Your task to perform on an android device: open app "YouTube Kids" (install if not already installed) Image 0: 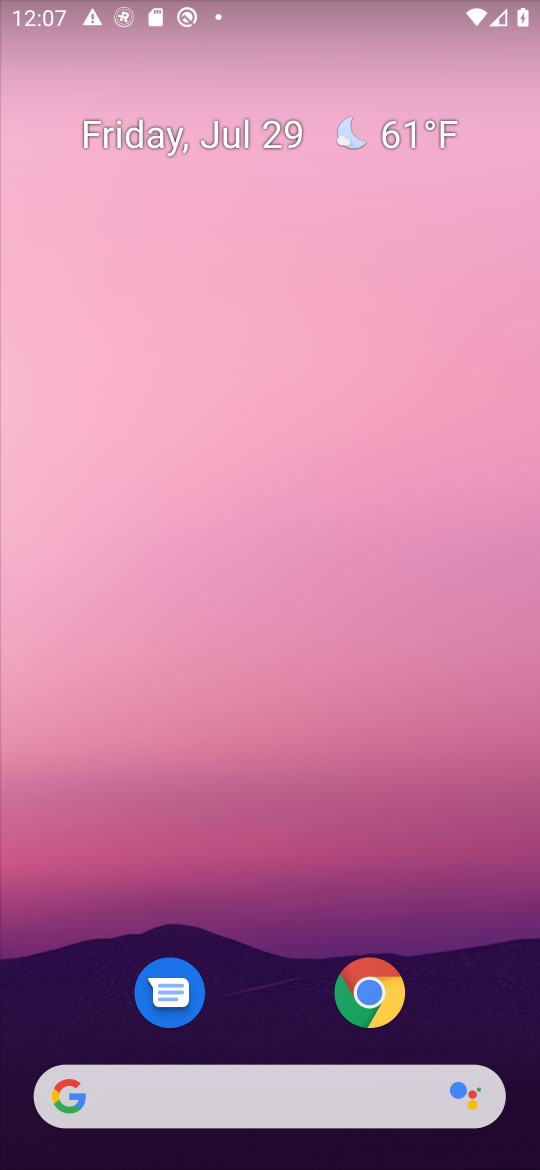
Step 0: drag from (216, 1090) to (299, 161)
Your task to perform on an android device: open app "YouTube Kids" (install if not already installed) Image 1: 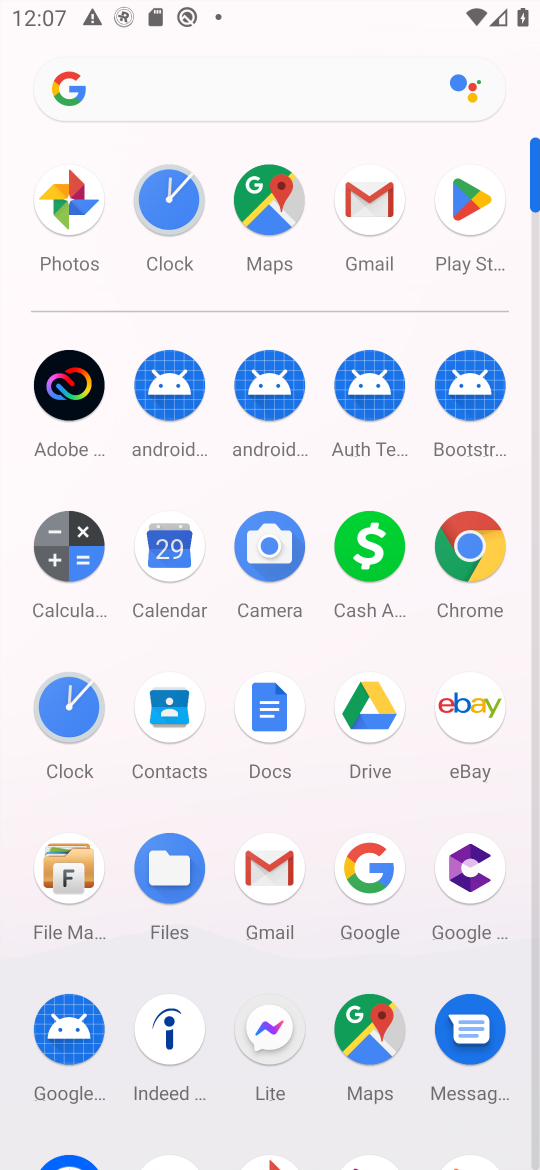
Step 1: click (466, 208)
Your task to perform on an android device: open app "YouTube Kids" (install if not already installed) Image 2: 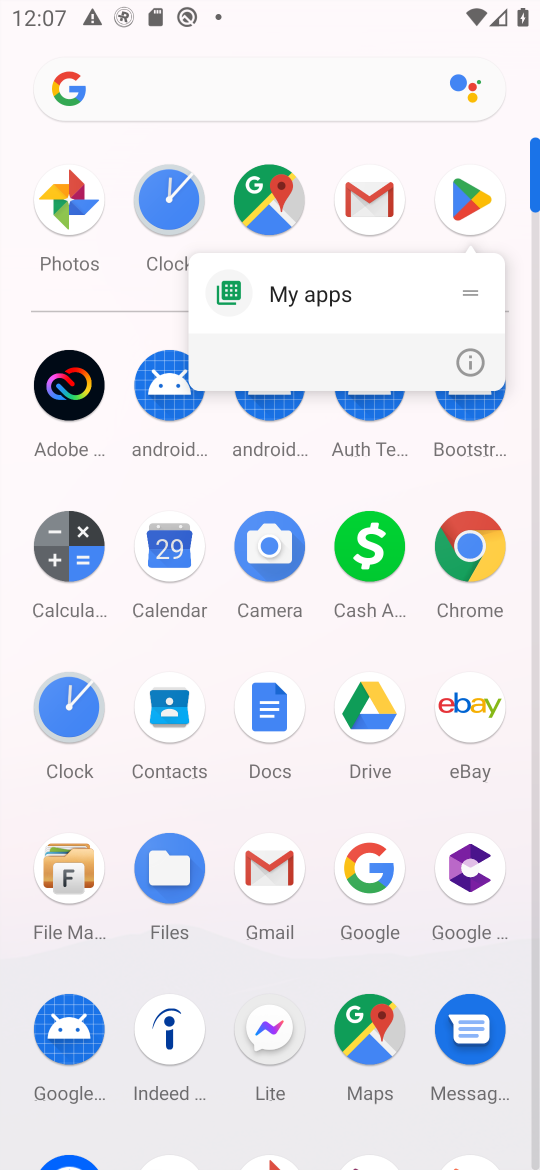
Step 2: click (466, 208)
Your task to perform on an android device: open app "YouTube Kids" (install if not already installed) Image 3: 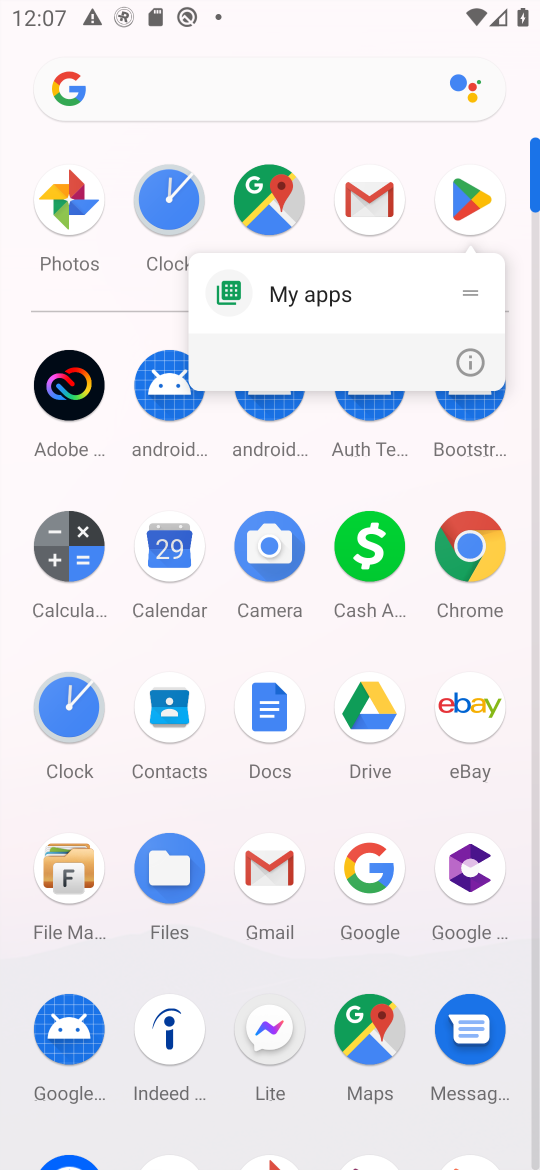
Step 3: click (480, 200)
Your task to perform on an android device: open app "YouTube Kids" (install if not already installed) Image 4: 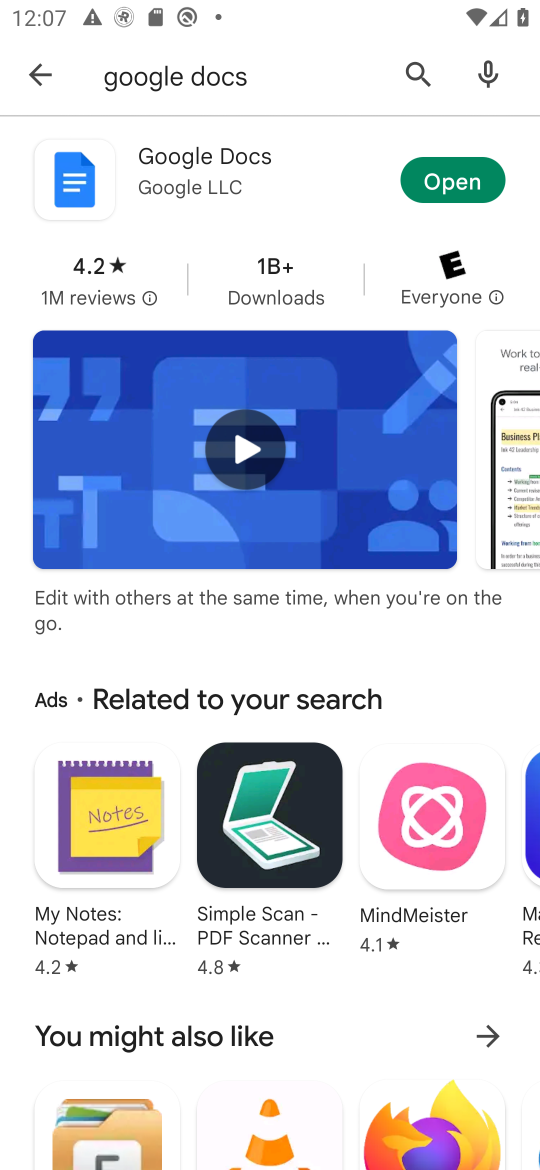
Step 4: click (420, 79)
Your task to perform on an android device: open app "YouTube Kids" (install if not already installed) Image 5: 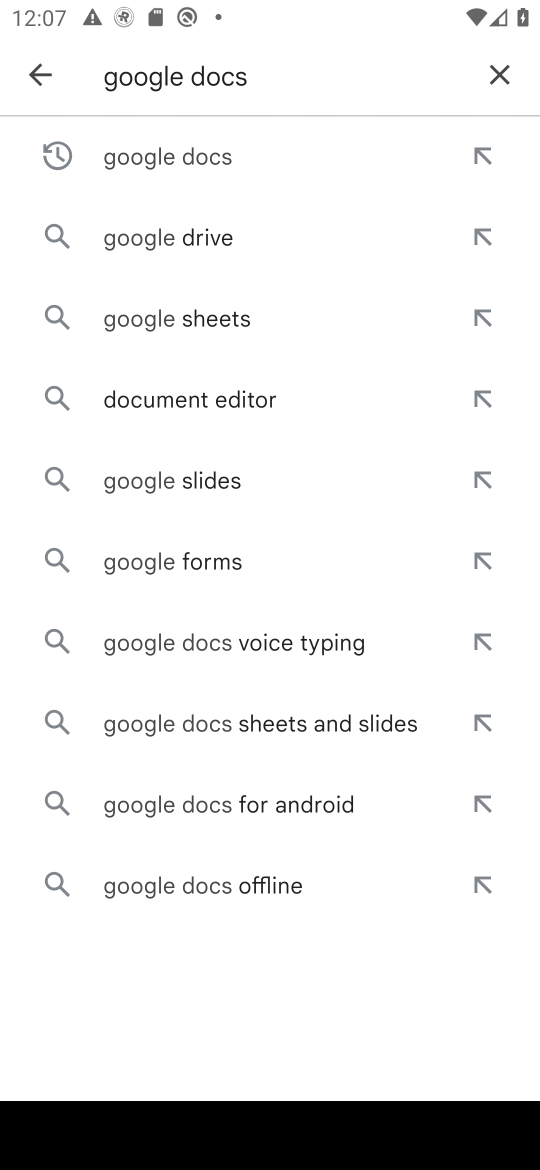
Step 5: click (514, 75)
Your task to perform on an android device: open app "YouTube Kids" (install if not already installed) Image 6: 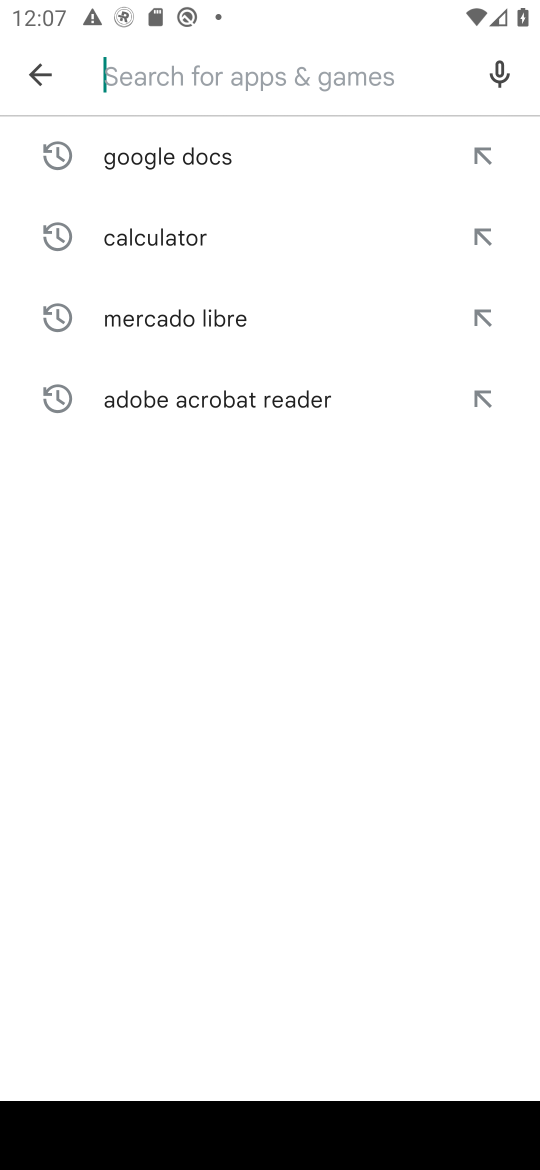
Step 6: type "YouTube Kids"
Your task to perform on an android device: open app "YouTube Kids" (install if not already installed) Image 7: 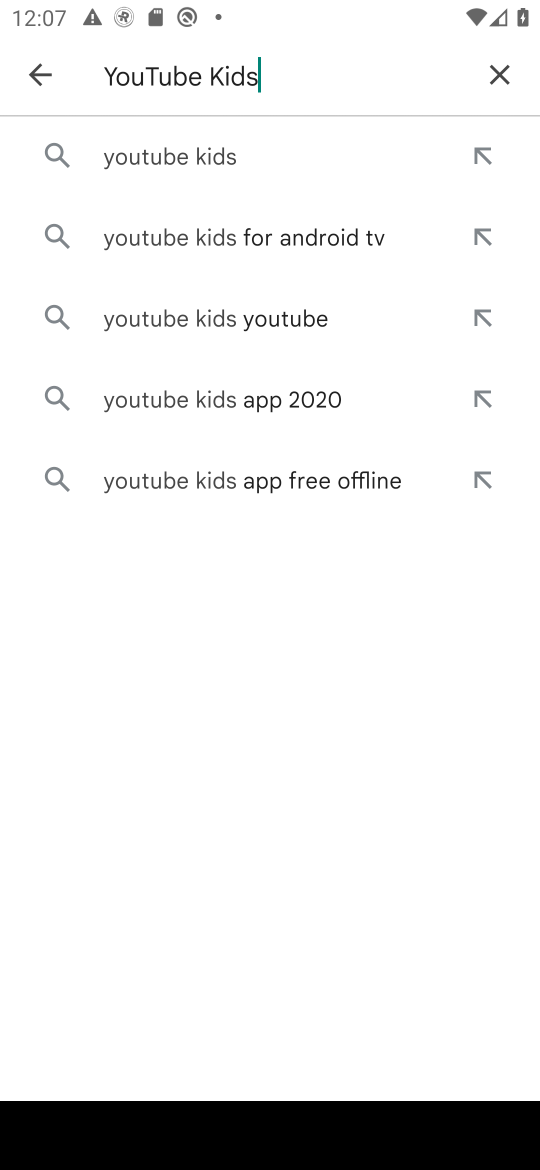
Step 7: click (173, 164)
Your task to perform on an android device: open app "YouTube Kids" (install if not already installed) Image 8: 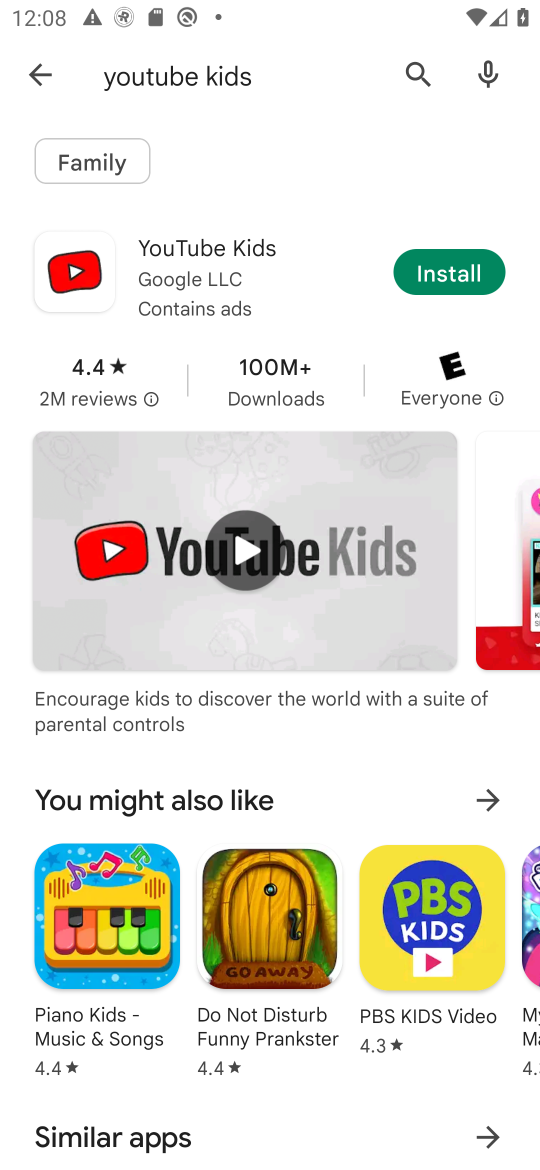
Step 8: click (442, 274)
Your task to perform on an android device: open app "YouTube Kids" (install if not already installed) Image 9: 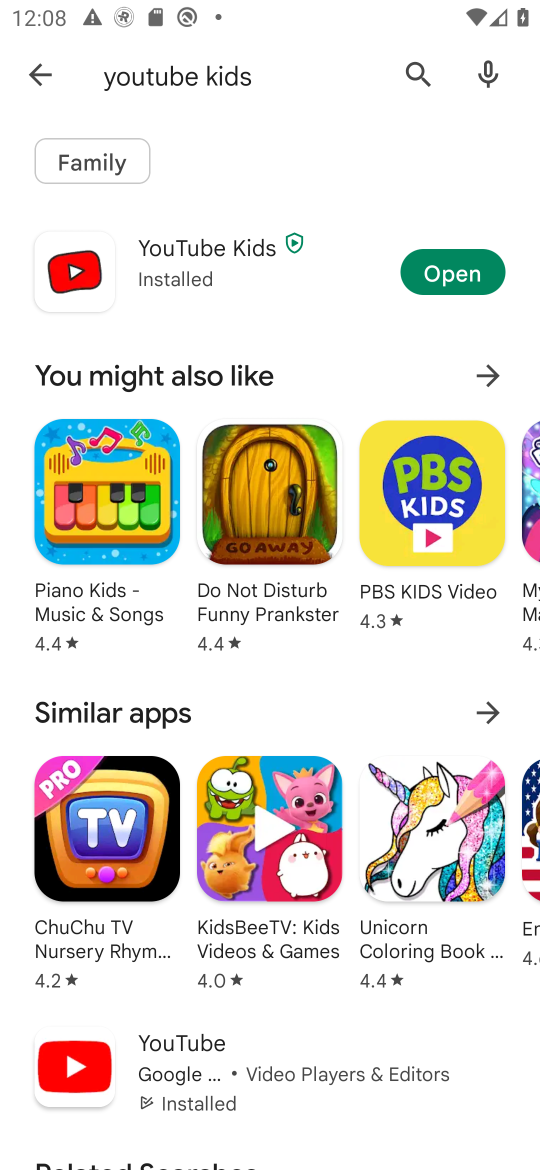
Step 9: click (476, 279)
Your task to perform on an android device: open app "YouTube Kids" (install if not already installed) Image 10: 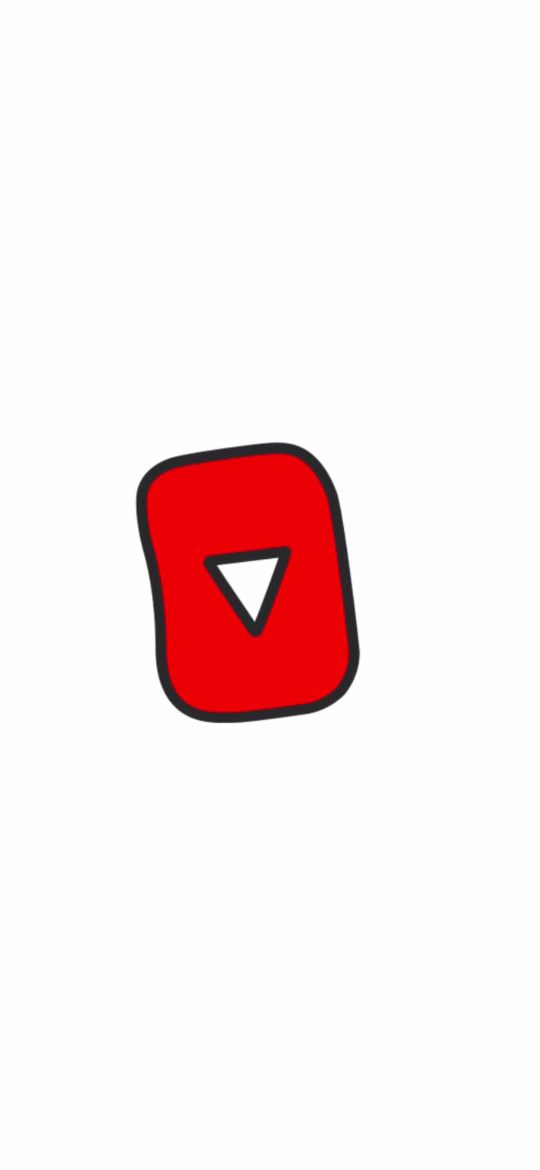
Step 10: task complete